Your task to perform on an android device: Play the last video I watched on Youtube Image 0: 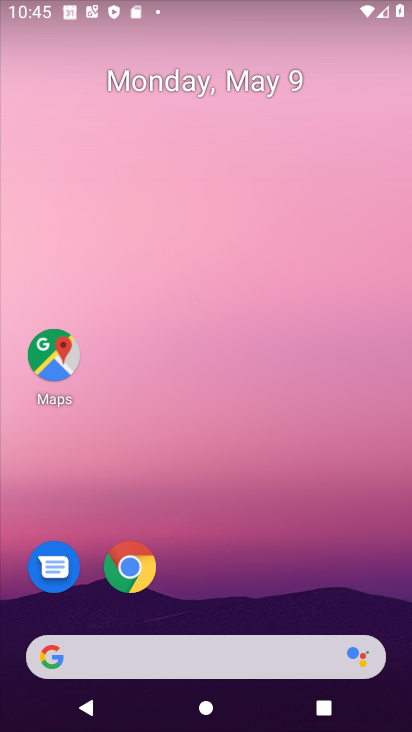
Step 0: drag from (189, 644) to (85, 86)
Your task to perform on an android device: Play the last video I watched on Youtube Image 1: 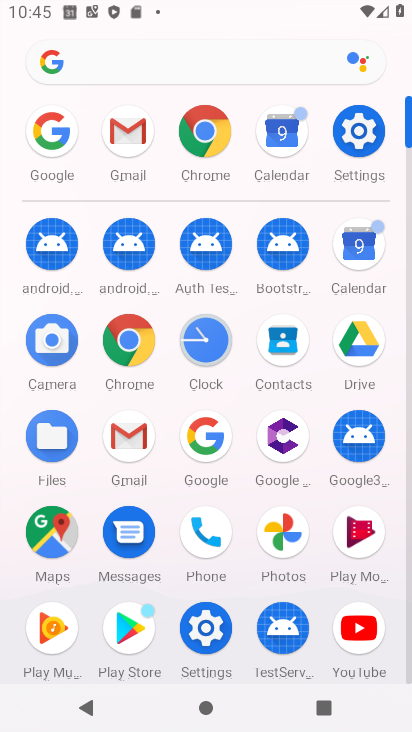
Step 1: click (362, 641)
Your task to perform on an android device: Play the last video I watched on Youtube Image 2: 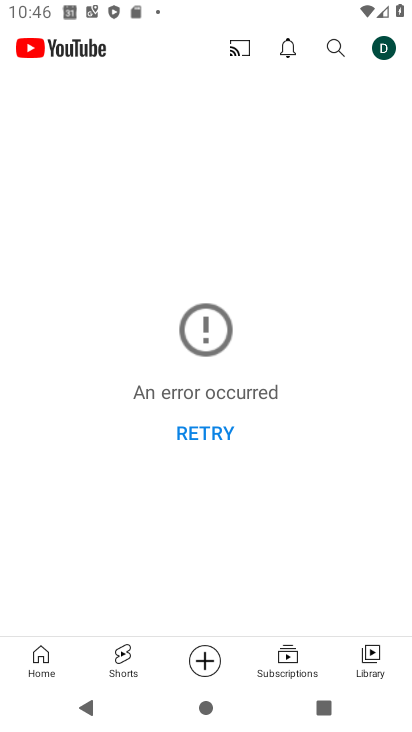
Step 2: click (376, 667)
Your task to perform on an android device: Play the last video I watched on Youtube Image 3: 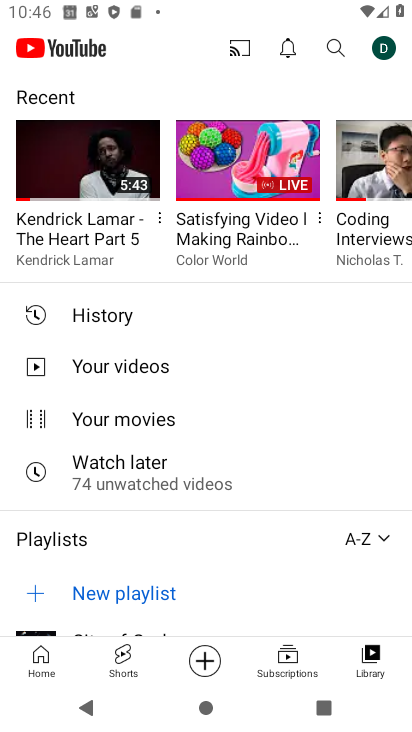
Step 3: click (101, 314)
Your task to perform on an android device: Play the last video I watched on Youtube Image 4: 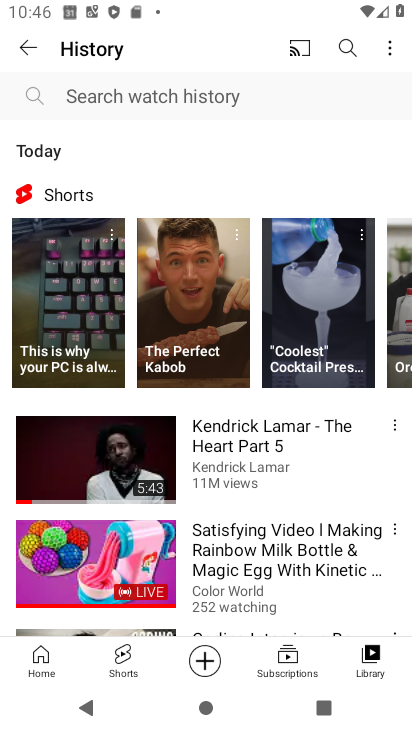
Step 4: click (221, 466)
Your task to perform on an android device: Play the last video I watched on Youtube Image 5: 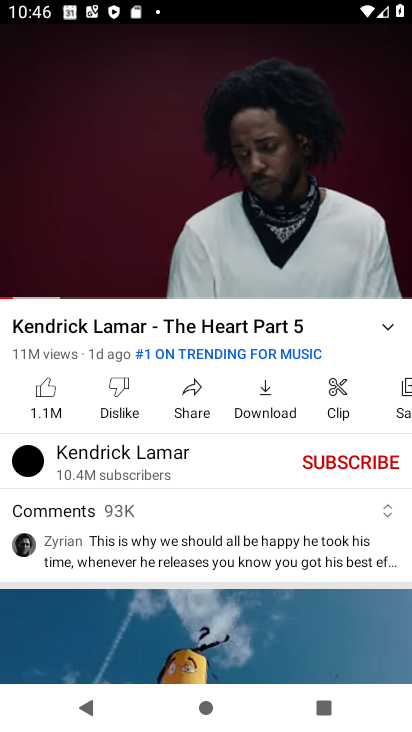
Step 5: task complete